Your task to perform on an android device: What's on my calendar today? Image 0: 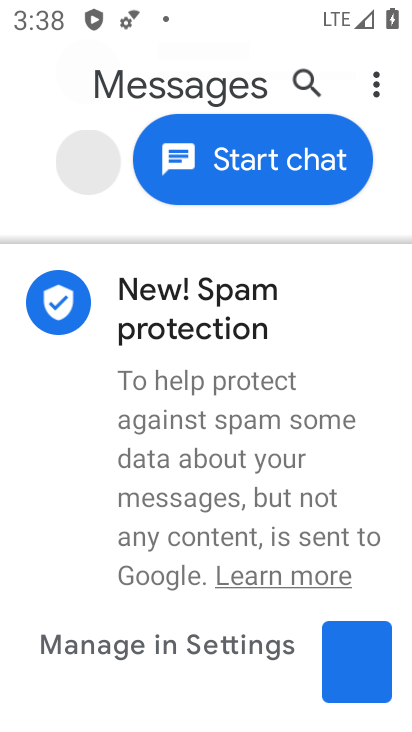
Step 0: press home button
Your task to perform on an android device: What's on my calendar today? Image 1: 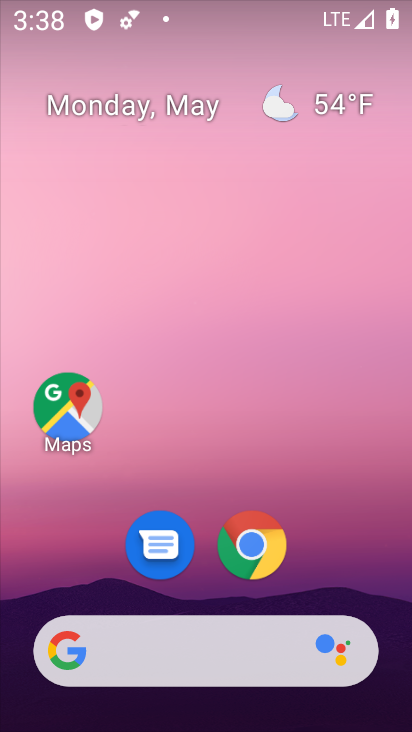
Step 1: drag from (391, 662) to (276, 82)
Your task to perform on an android device: What's on my calendar today? Image 2: 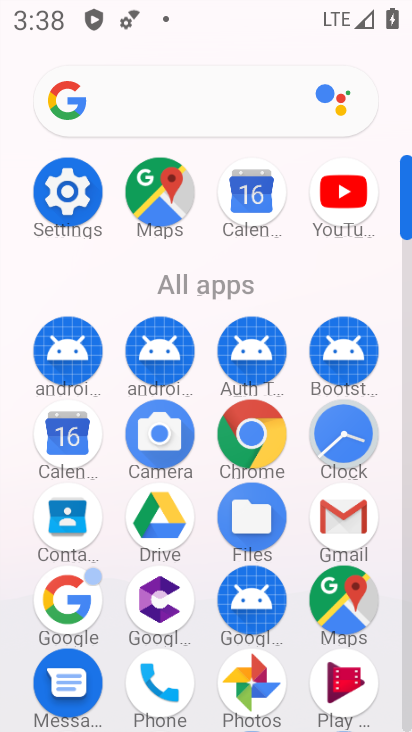
Step 2: click (405, 710)
Your task to perform on an android device: What's on my calendar today? Image 3: 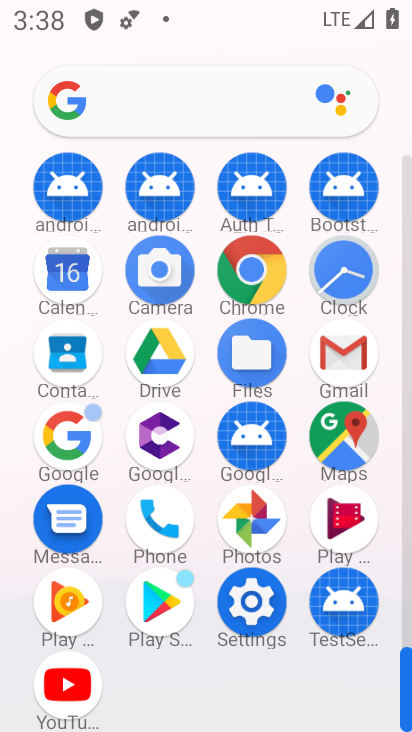
Step 3: click (70, 271)
Your task to perform on an android device: What's on my calendar today? Image 4: 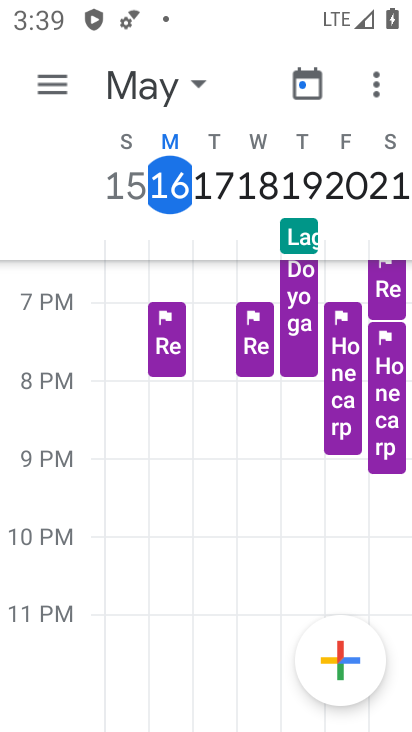
Step 4: click (62, 77)
Your task to perform on an android device: What's on my calendar today? Image 5: 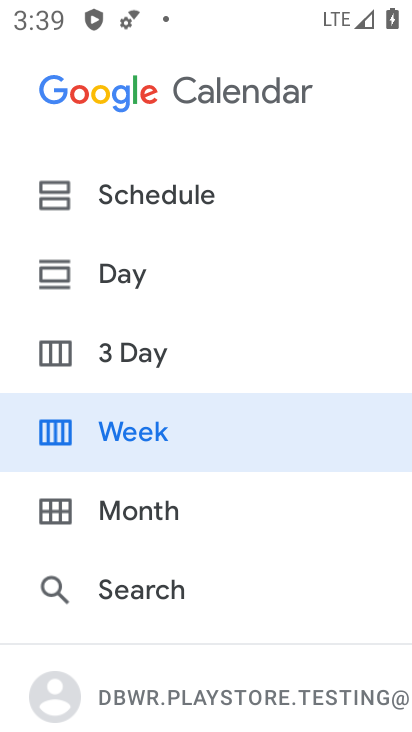
Step 5: click (120, 267)
Your task to perform on an android device: What's on my calendar today? Image 6: 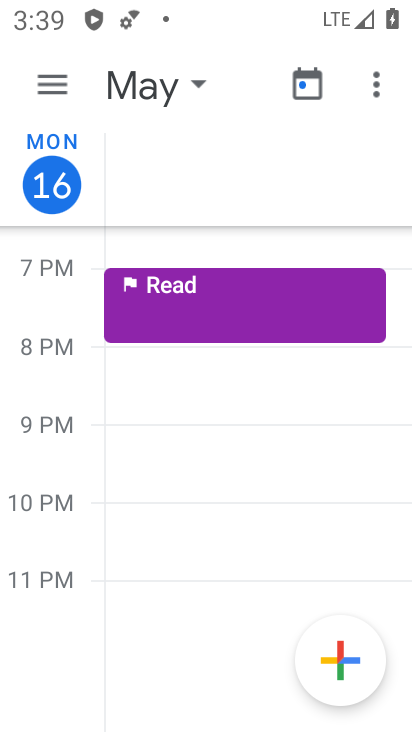
Step 6: task complete